Your task to perform on an android device: Open the calendar and show me this week's events? Image 0: 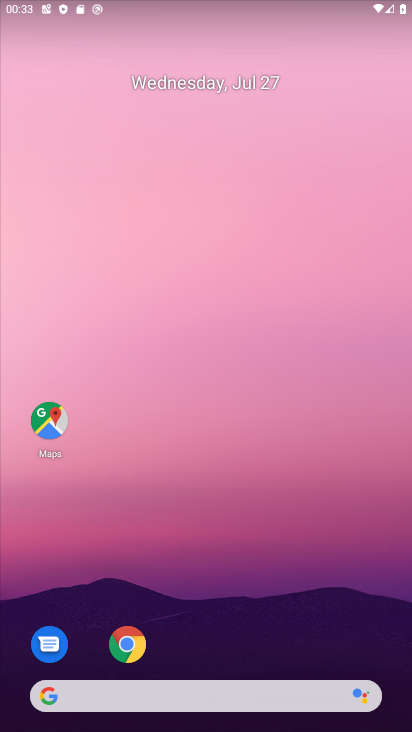
Step 0: drag from (284, 505) to (277, 223)
Your task to perform on an android device: Open the calendar and show me this week's events? Image 1: 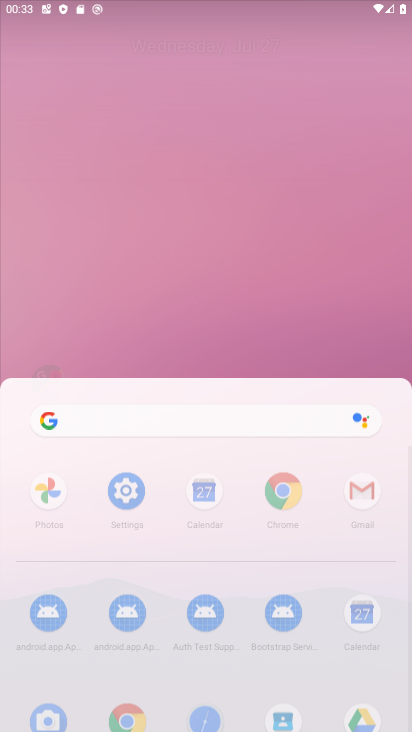
Step 1: drag from (290, 501) to (290, 223)
Your task to perform on an android device: Open the calendar and show me this week's events? Image 2: 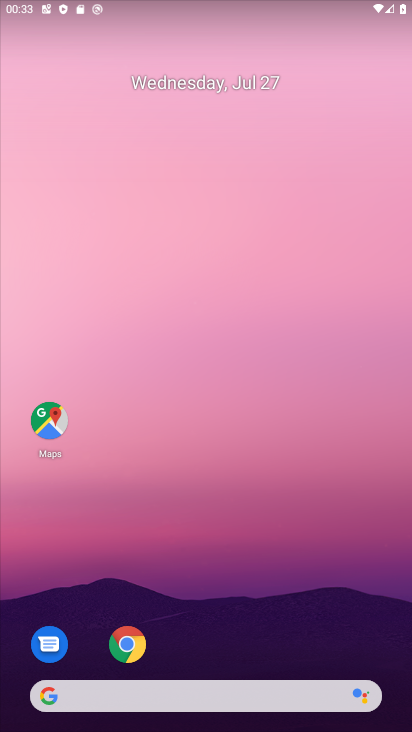
Step 2: drag from (328, 502) to (311, 208)
Your task to perform on an android device: Open the calendar and show me this week's events? Image 3: 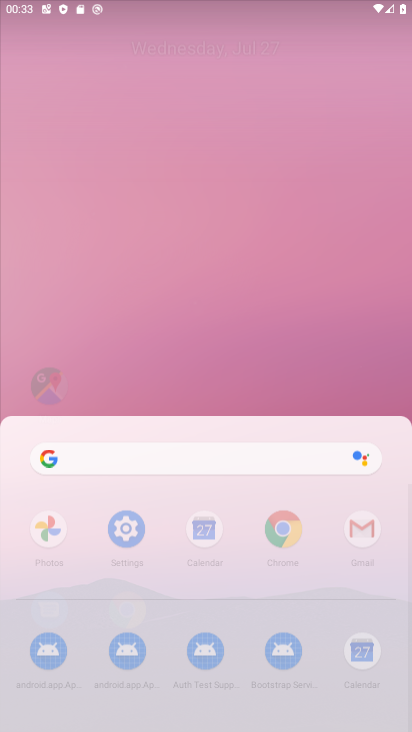
Step 3: drag from (322, 459) to (285, 188)
Your task to perform on an android device: Open the calendar and show me this week's events? Image 4: 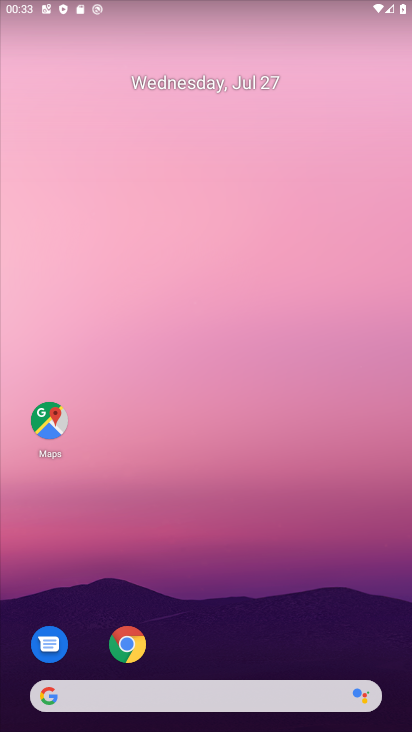
Step 4: drag from (229, 451) to (229, 164)
Your task to perform on an android device: Open the calendar and show me this week's events? Image 5: 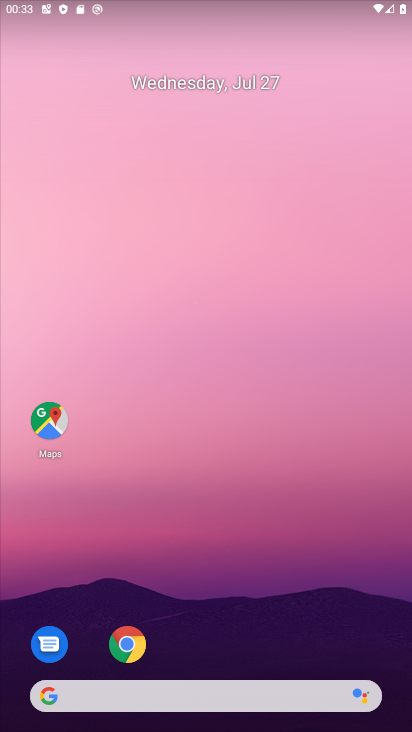
Step 5: drag from (161, 315) to (341, 87)
Your task to perform on an android device: Open the calendar and show me this week's events? Image 6: 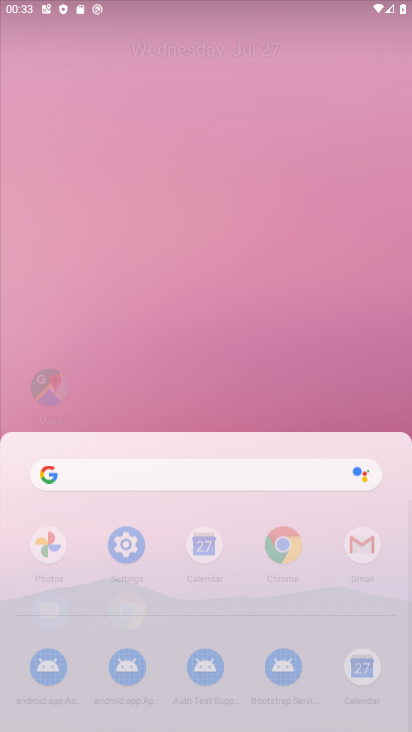
Step 6: drag from (278, 432) to (276, 73)
Your task to perform on an android device: Open the calendar and show me this week's events? Image 7: 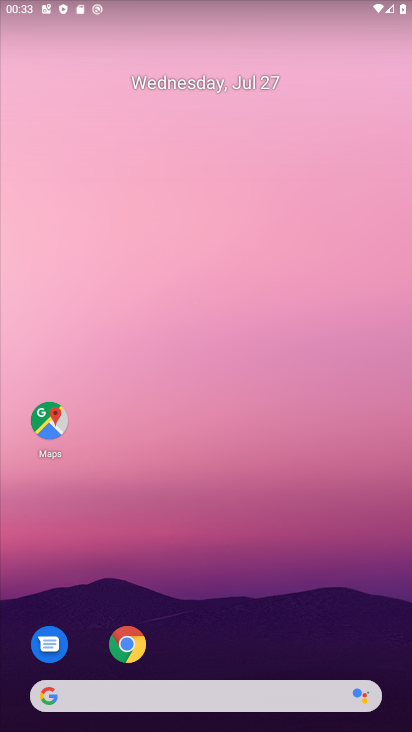
Step 7: drag from (210, 540) to (266, 77)
Your task to perform on an android device: Open the calendar and show me this week's events? Image 8: 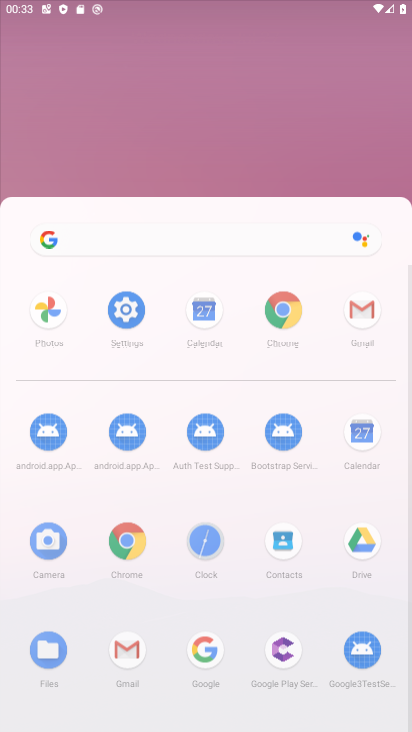
Step 8: drag from (223, 525) to (267, 110)
Your task to perform on an android device: Open the calendar and show me this week's events? Image 9: 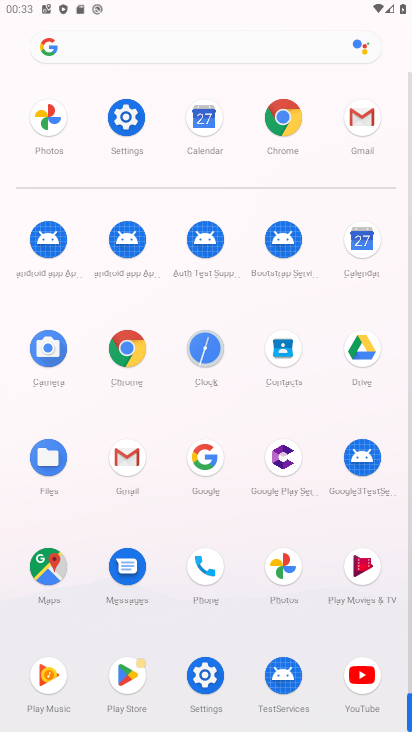
Step 9: drag from (219, 567) to (229, 187)
Your task to perform on an android device: Open the calendar and show me this week's events? Image 10: 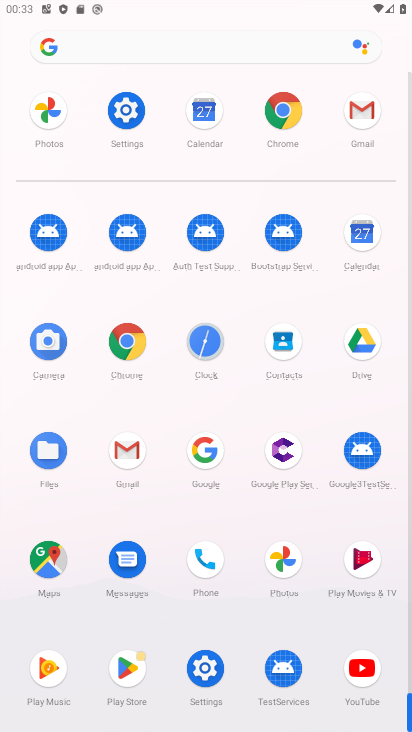
Step 10: click (359, 242)
Your task to perform on an android device: Open the calendar and show me this week's events? Image 11: 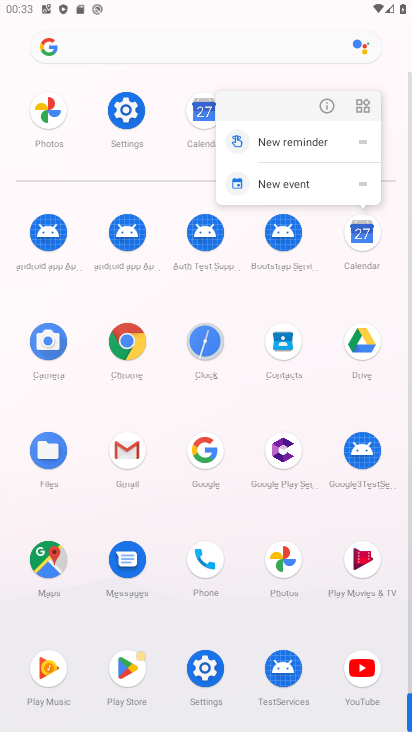
Step 11: click (353, 241)
Your task to perform on an android device: Open the calendar and show me this week's events? Image 12: 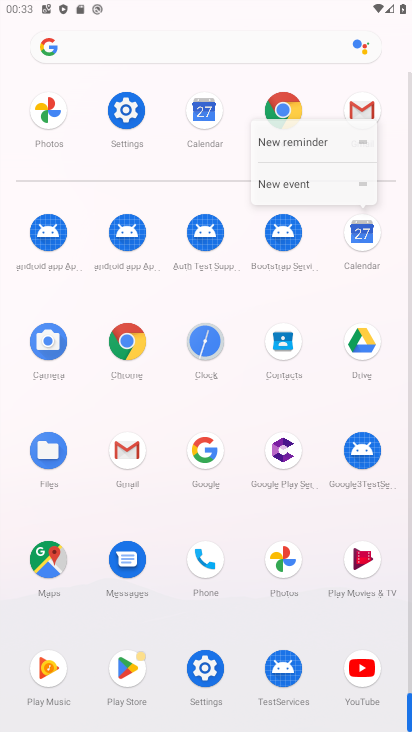
Step 12: click (353, 241)
Your task to perform on an android device: Open the calendar and show me this week's events? Image 13: 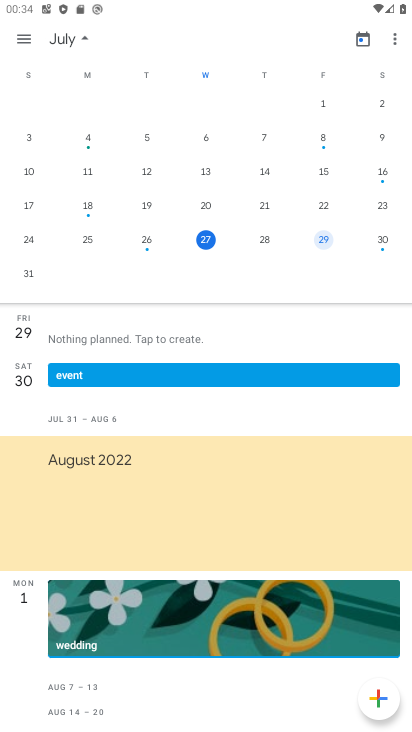
Step 13: click (315, 238)
Your task to perform on an android device: Open the calendar and show me this week's events? Image 14: 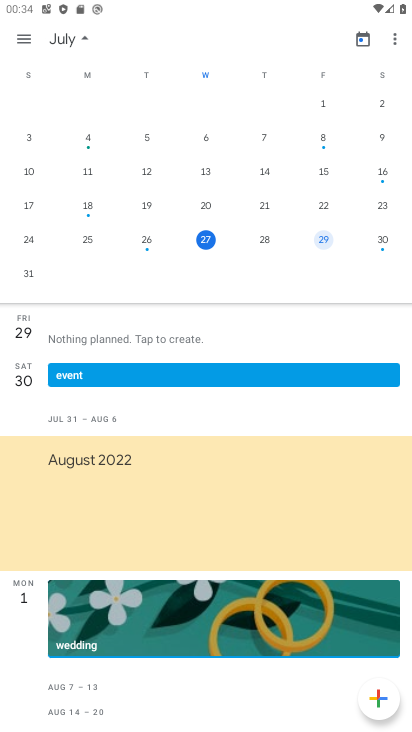
Step 14: click (319, 236)
Your task to perform on an android device: Open the calendar and show me this week's events? Image 15: 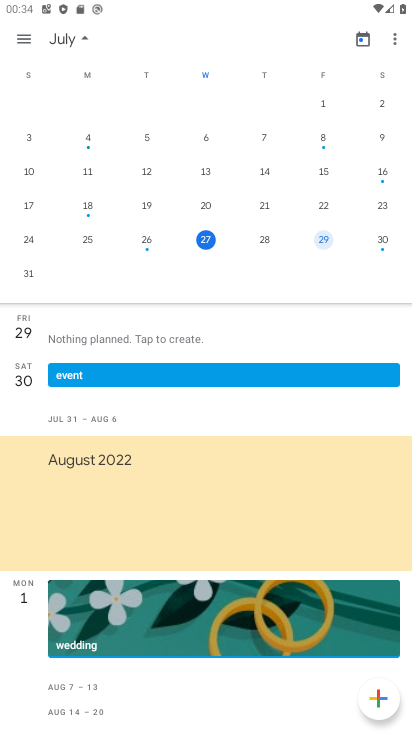
Step 15: task complete